Your task to perform on an android device: Go to accessibility settings Image 0: 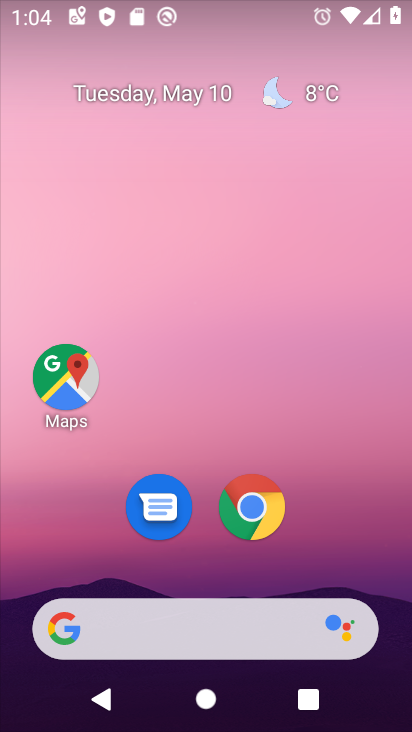
Step 0: drag from (207, 714) to (211, 146)
Your task to perform on an android device: Go to accessibility settings Image 1: 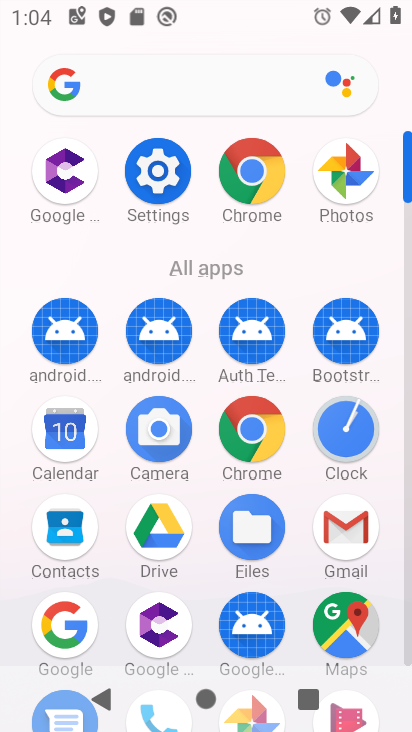
Step 1: click (153, 171)
Your task to perform on an android device: Go to accessibility settings Image 2: 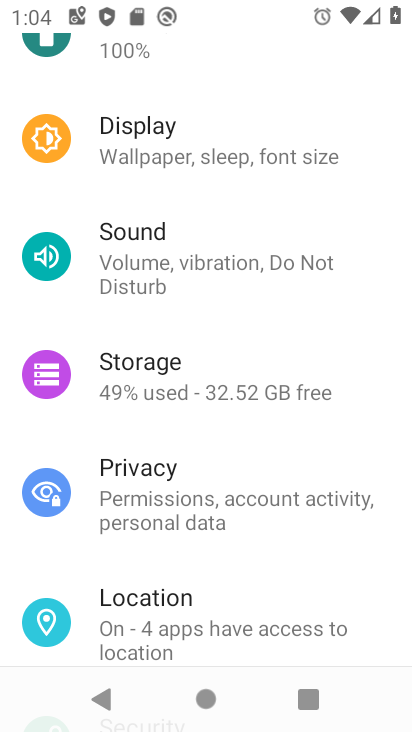
Step 2: drag from (182, 631) to (187, 270)
Your task to perform on an android device: Go to accessibility settings Image 3: 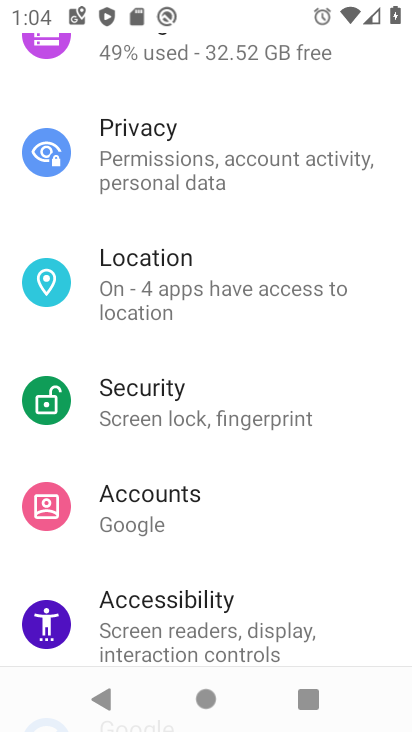
Step 3: click (142, 600)
Your task to perform on an android device: Go to accessibility settings Image 4: 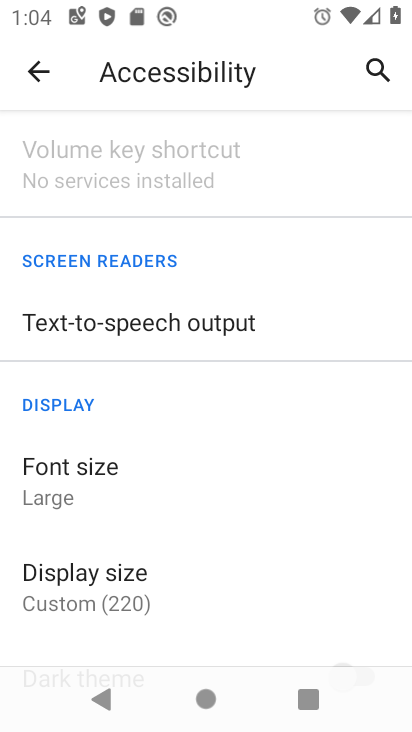
Step 4: task complete